Your task to perform on an android device: Open calendar and show me the first week of next month Image 0: 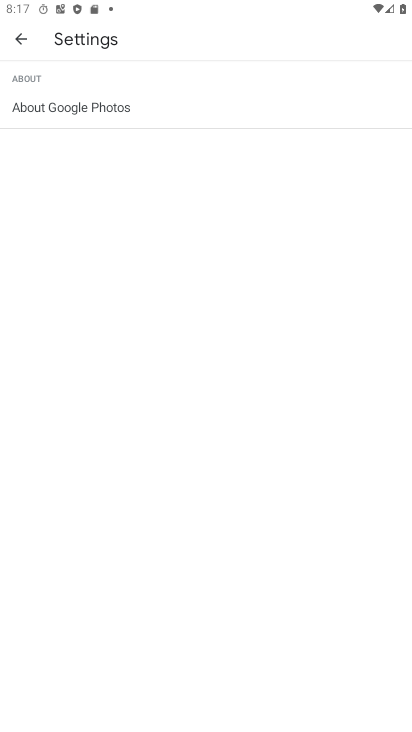
Step 0: press home button
Your task to perform on an android device: Open calendar and show me the first week of next month Image 1: 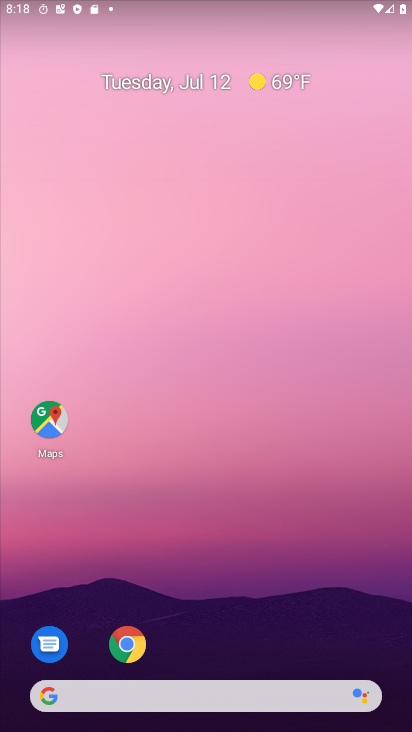
Step 1: drag from (219, 644) to (249, 37)
Your task to perform on an android device: Open calendar and show me the first week of next month Image 2: 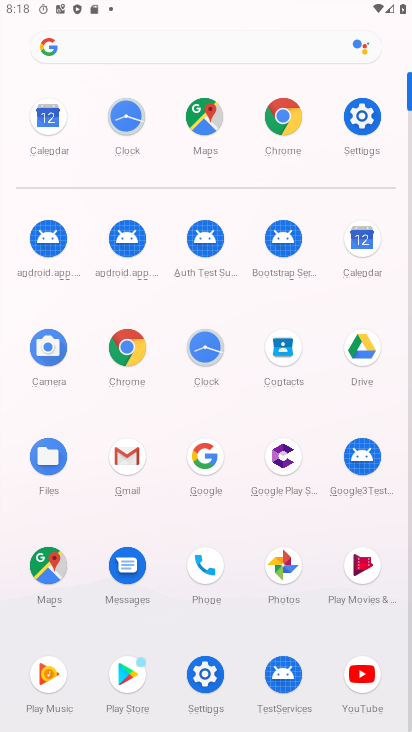
Step 2: click (359, 240)
Your task to perform on an android device: Open calendar and show me the first week of next month Image 3: 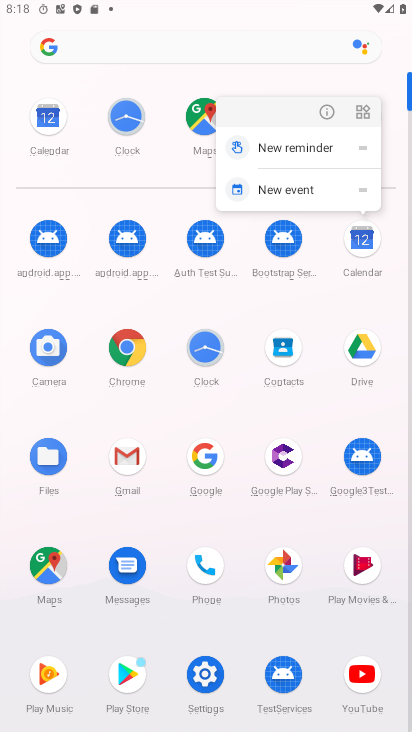
Step 3: click (357, 248)
Your task to perform on an android device: Open calendar and show me the first week of next month Image 4: 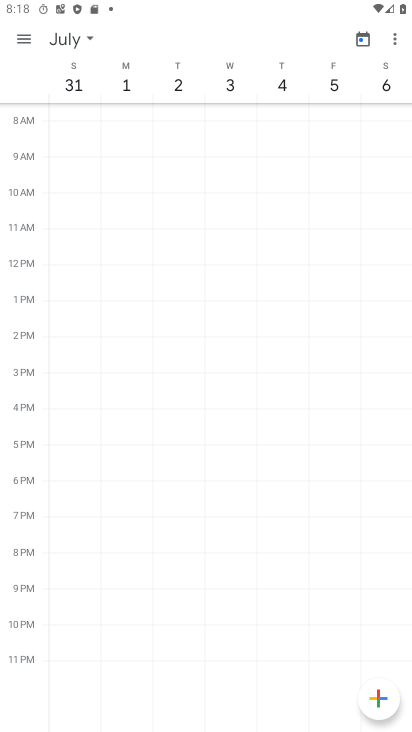
Step 4: task complete